Your task to perform on an android device: open a bookmark in the chrome app Image 0: 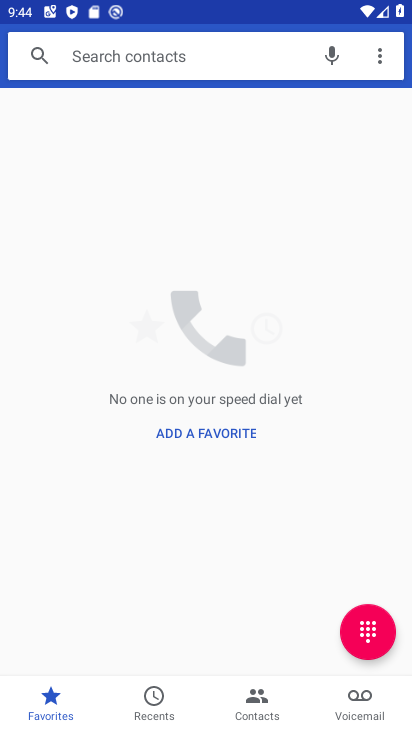
Step 0: press home button
Your task to perform on an android device: open a bookmark in the chrome app Image 1: 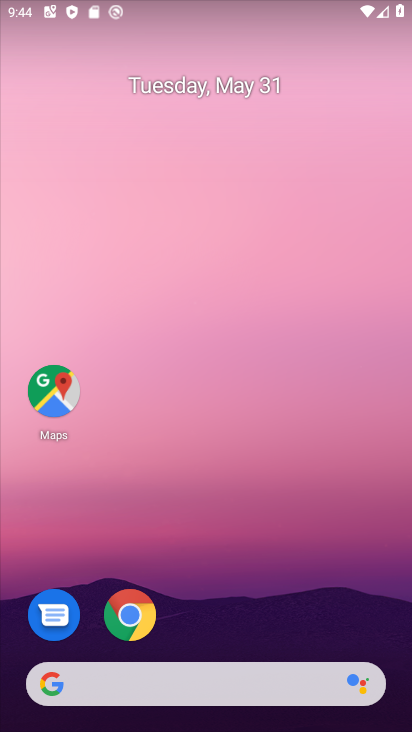
Step 1: drag from (340, 528) to (279, 145)
Your task to perform on an android device: open a bookmark in the chrome app Image 2: 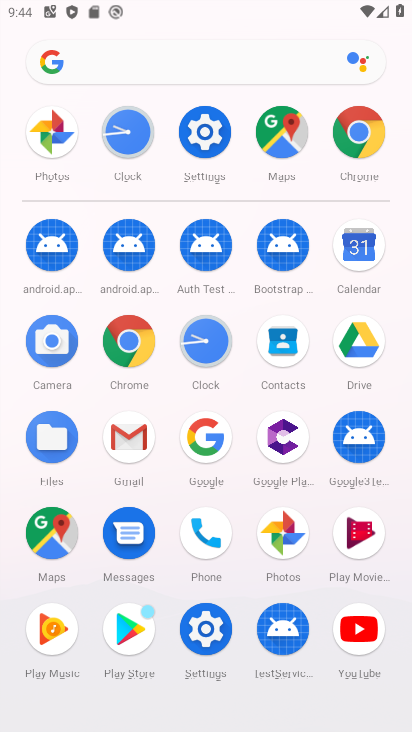
Step 2: click (378, 143)
Your task to perform on an android device: open a bookmark in the chrome app Image 3: 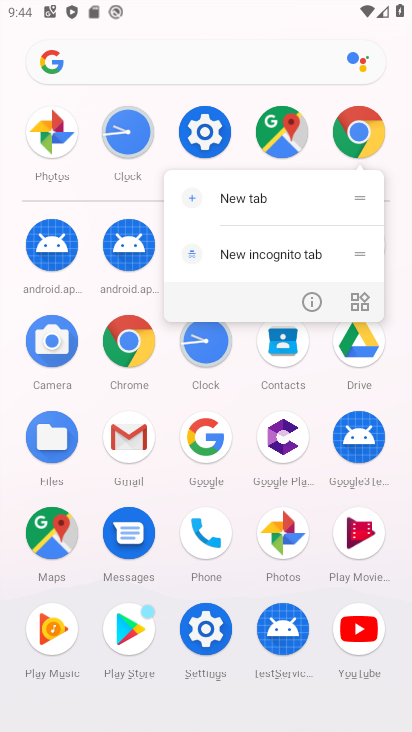
Step 3: click (378, 143)
Your task to perform on an android device: open a bookmark in the chrome app Image 4: 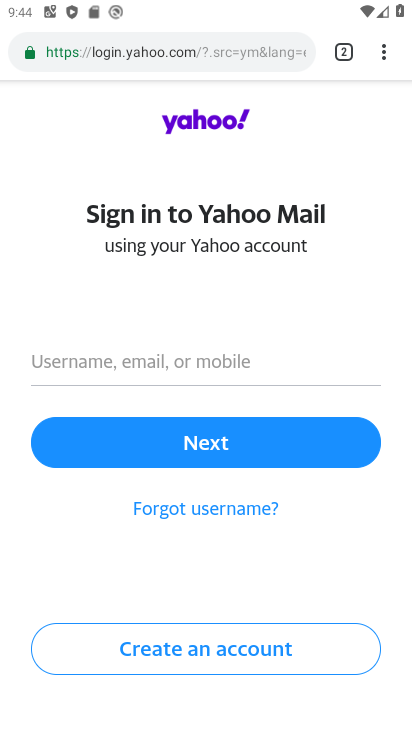
Step 4: drag from (377, 55) to (199, 189)
Your task to perform on an android device: open a bookmark in the chrome app Image 5: 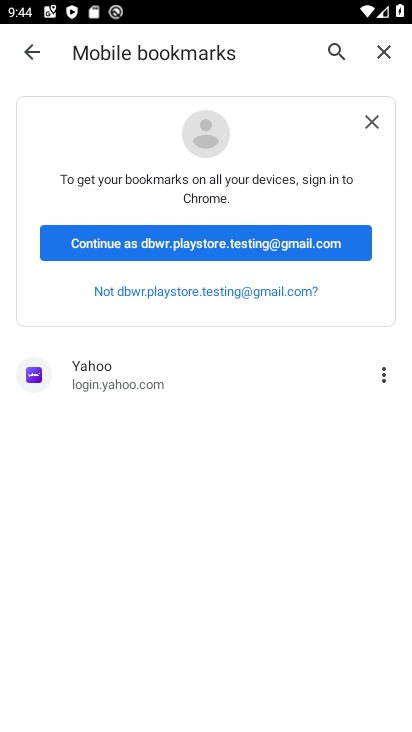
Step 5: click (144, 244)
Your task to perform on an android device: open a bookmark in the chrome app Image 6: 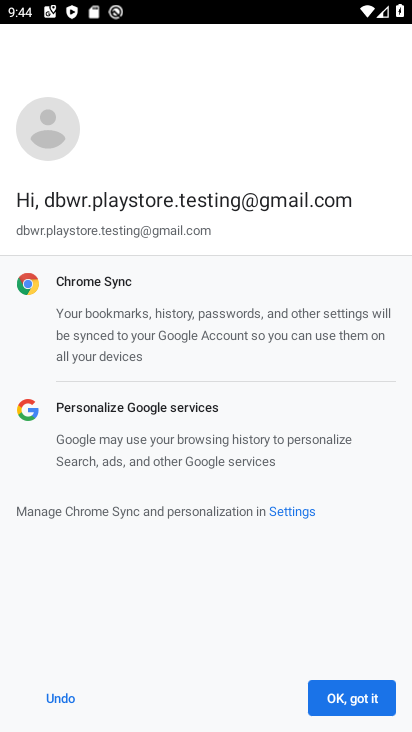
Step 6: click (360, 702)
Your task to perform on an android device: open a bookmark in the chrome app Image 7: 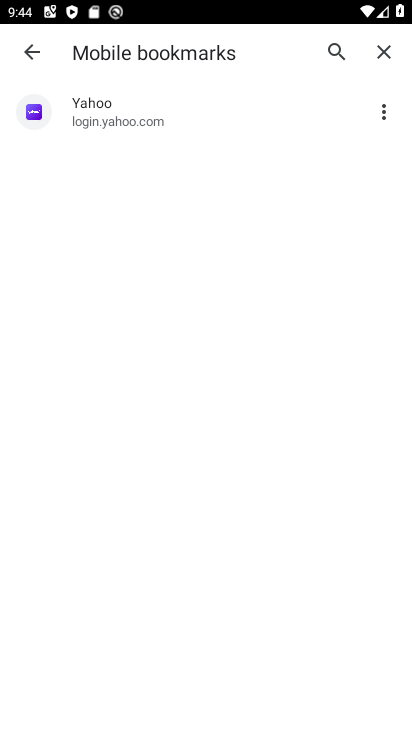
Step 7: task complete